Your task to perform on an android device: Open Google Maps Image 0: 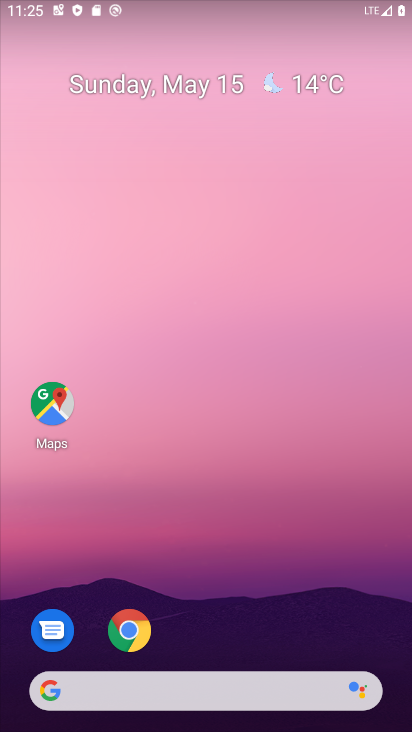
Step 0: click (46, 405)
Your task to perform on an android device: Open Google Maps Image 1: 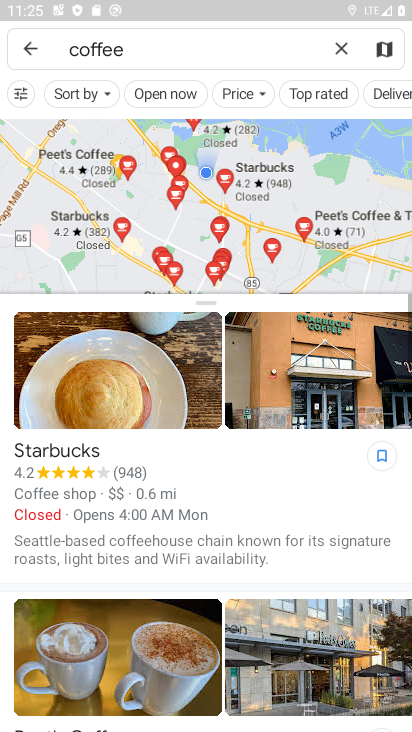
Step 1: click (338, 47)
Your task to perform on an android device: Open Google Maps Image 2: 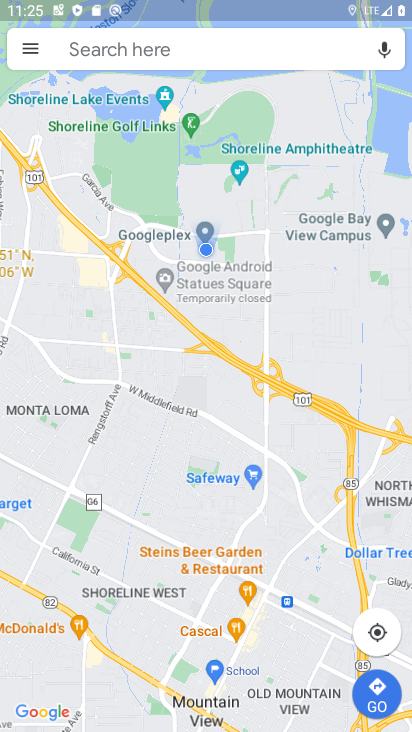
Step 2: task complete